Your task to perform on an android device: Go to Amazon Image 0: 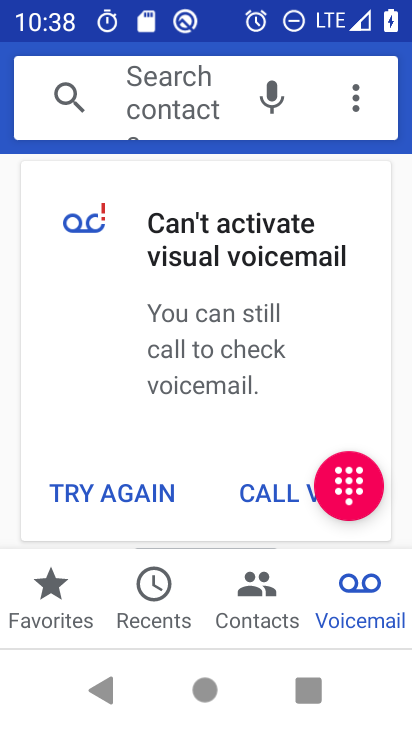
Step 0: press home button
Your task to perform on an android device: Go to Amazon Image 1: 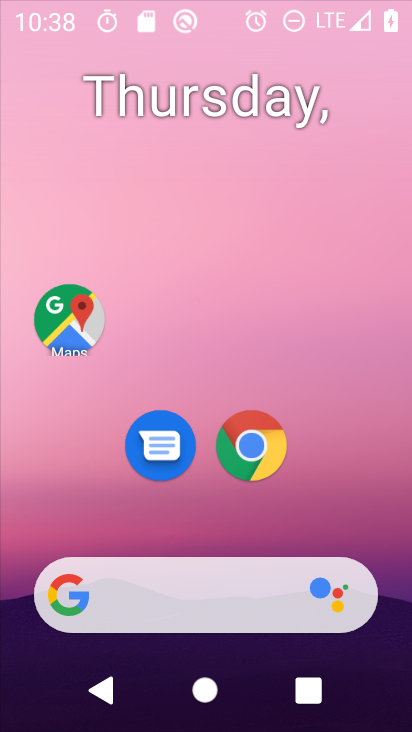
Step 1: drag from (173, 532) to (299, 121)
Your task to perform on an android device: Go to Amazon Image 2: 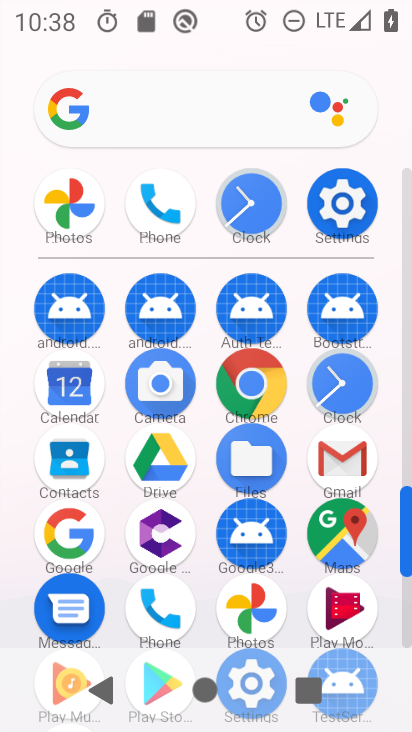
Step 2: click (235, 122)
Your task to perform on an android device: Go to Amazon Image 3: 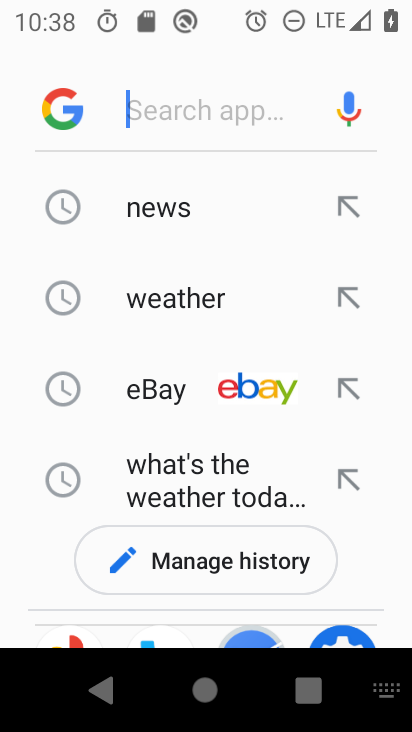
Step 3: drag from (209, 475) to (295, 170)
Your task to perform on an android device: Go to Amazon Image 4: 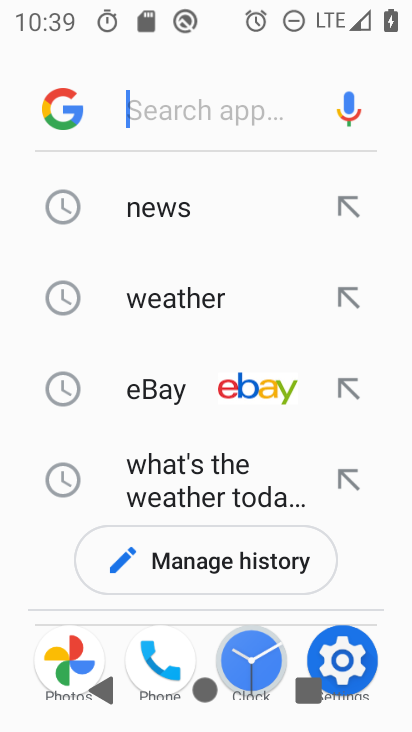
Step 4: click (195, 116)
Your task to perform on an android device: Go to Amazon Image 5: 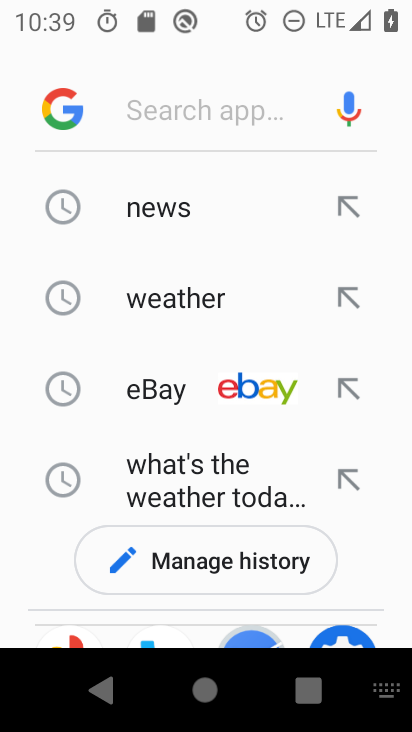
Step 5: type "amazon"
Your task to perform on an android device: Go to Amazon Image 6: 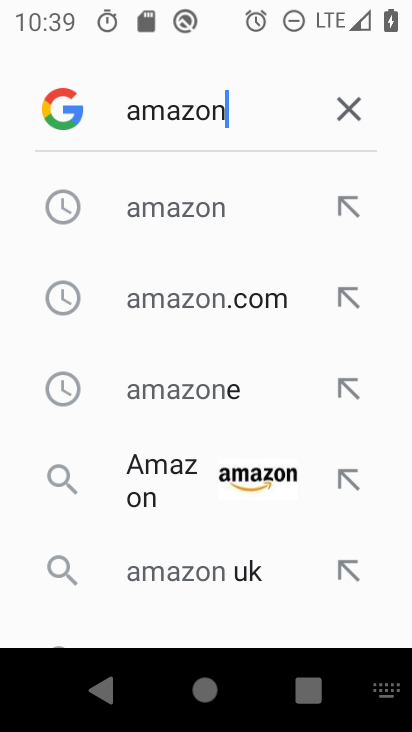
Step 6: click (202, 480)
Your task to perform on an android device: Go to Amazon Image 7: 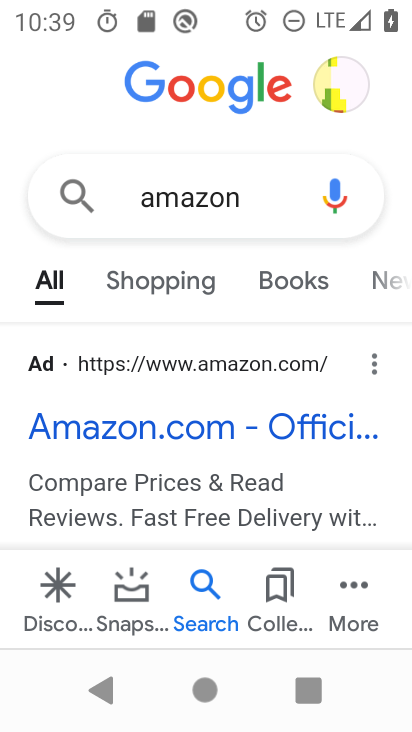
Step 7: click (180, 421)
Your task to perform on an android device: Go to Amazon Image 8: 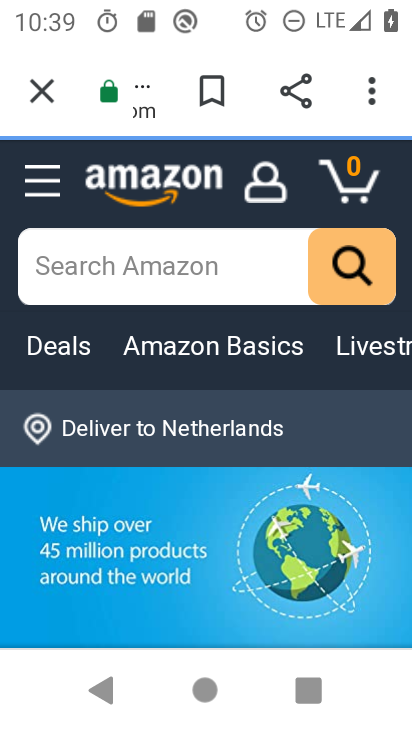
Step 8: task complete